Your task to perform on an android device: Open calendar and show me the second week of next month Image 0: 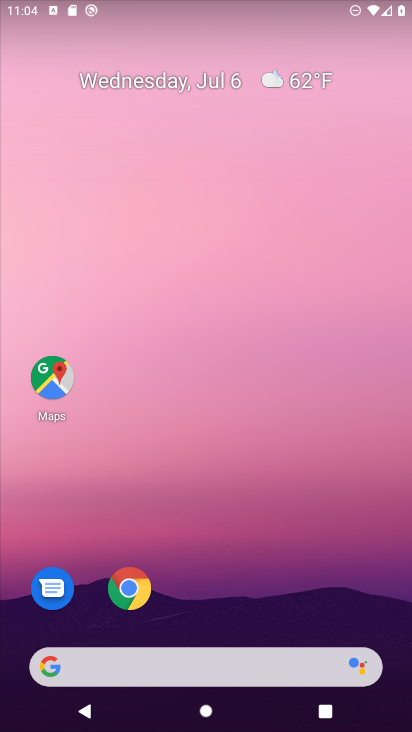
Step 0: drag from (386, 624) to (396, 42)
Your task to perform on an android device: Open calendar and show me the second week of next month Image 1: 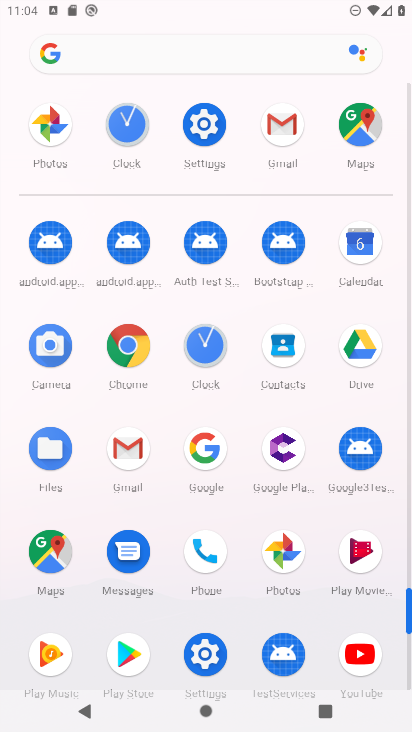
Step 1: click (362, 239)
Your task to perform on an android device: Open calendar and show me the second week of next month Image 2: 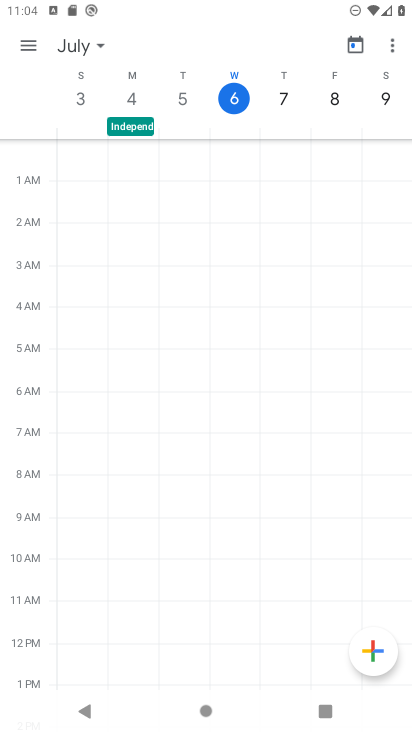
Step 2: click (85, 45)
Your task to perform on an android device: Open calendar and show me the second week of next month Image 3: 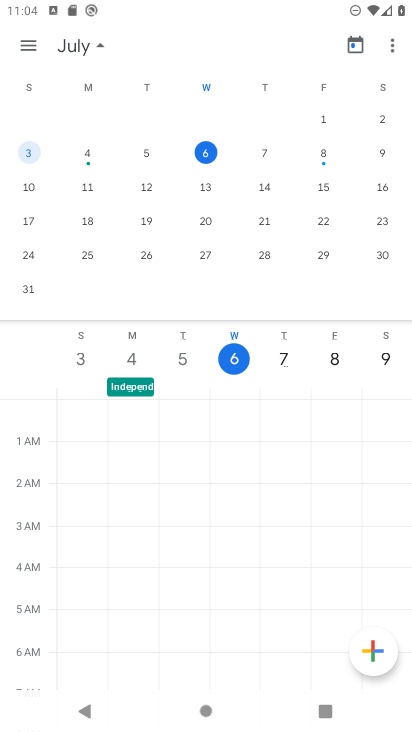
Step 3: drag from (372, 225) to (7, 200)
Your task to perform on an android device: Open calendar and show me the second week of next month Image 4: 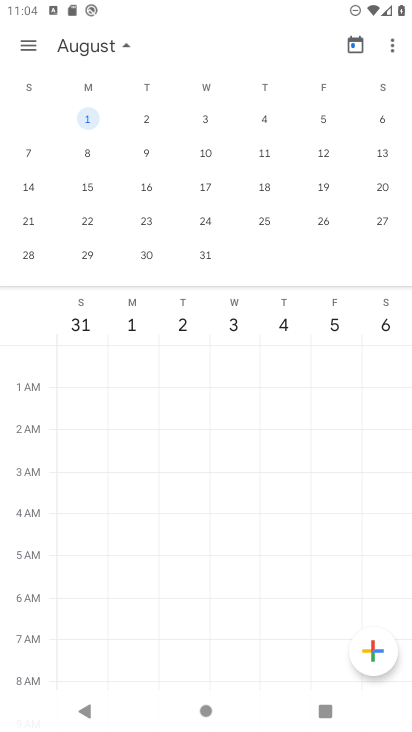
Step 4: click (25, 151)
Your task to perform on an android device: Open calendar and show me the second week of next month Image 5: 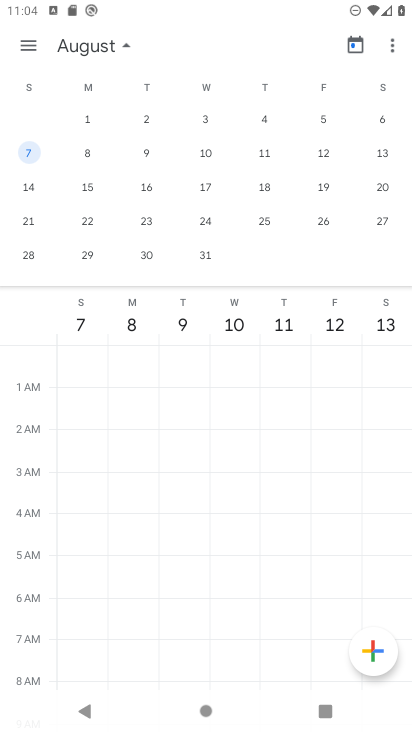
Step 5: task complete